Your task to perform on an android device: Go to Maps Image 0: 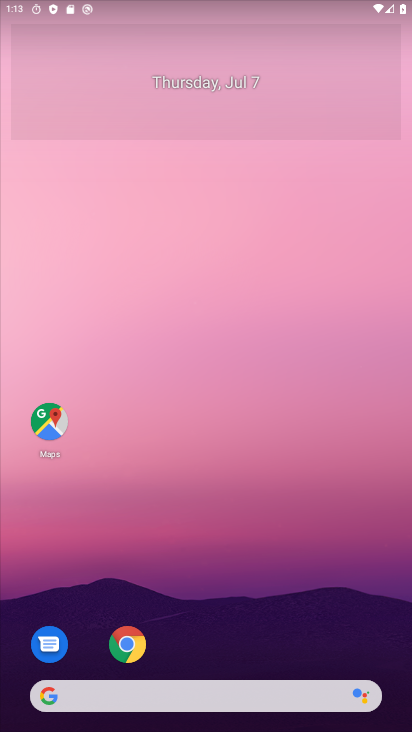
Step 0: drag from (229, 721) to (225, 113)
Your task to perform on an android device: Go to Maps Image 1: 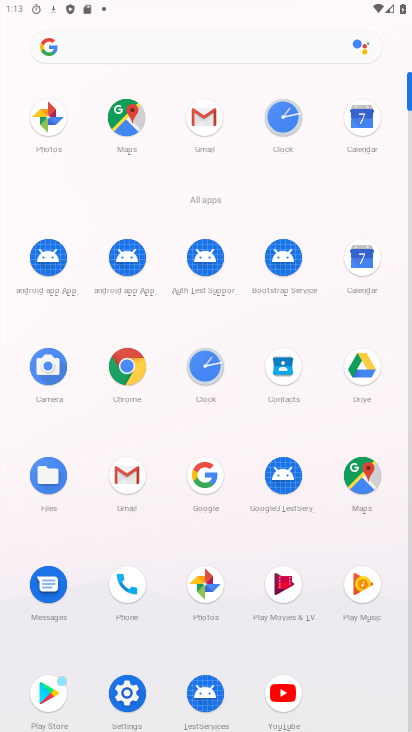
Step 1: click (359, 469)
Your task to perform on an android device: Go to Maps Image 2: 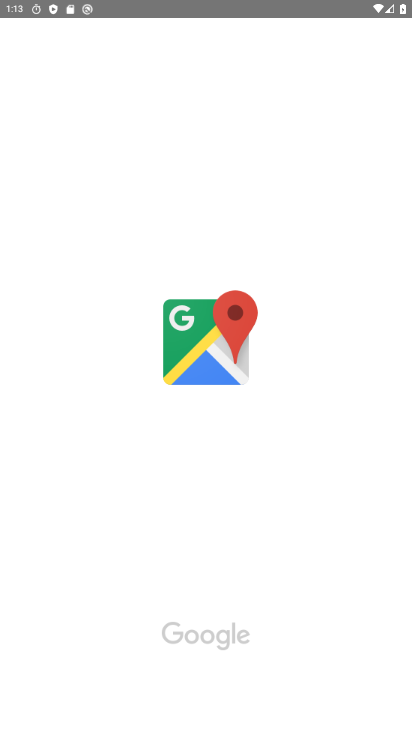
Step 2: task complete